Your task to perform on an android device: Open the calendar app, open the side menu, and click the "Day" option Image 0: 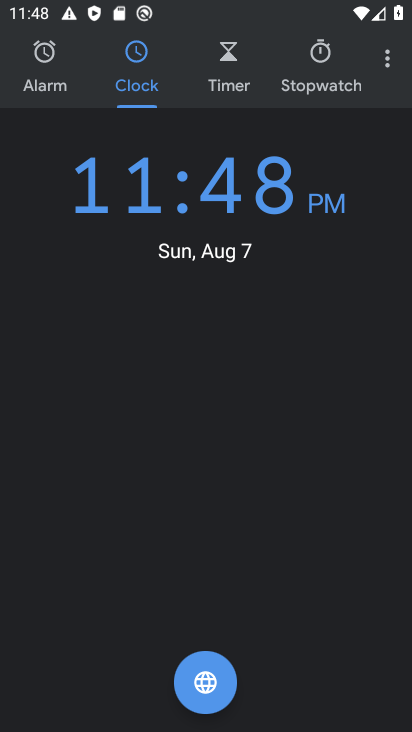
Step 0: press home button
Your task to perform on an android device: Open the calendar app, open the side menu, and click the "Day" option Image 1: 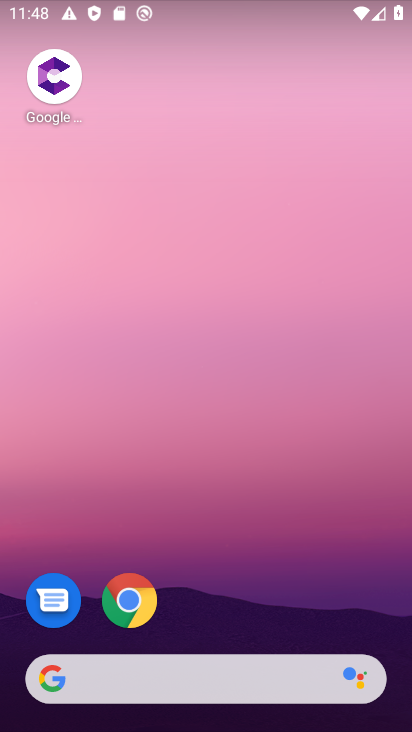
Step 1: drag from (190, 615) to (193, 174)
Your task to perform on an android device: Open the calendar app, open the side menu, and click the "Day" option Image 2: 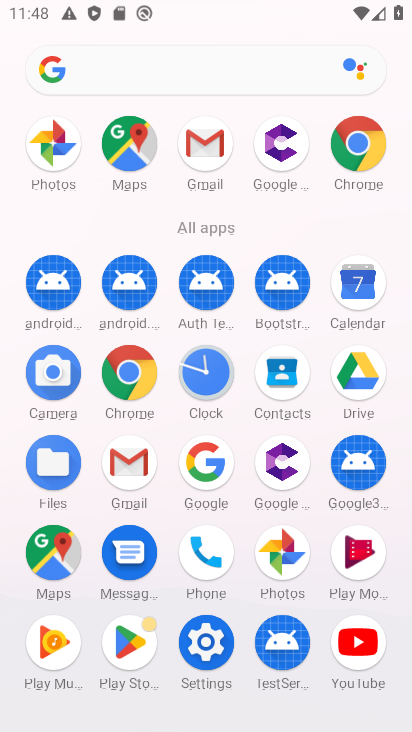
Step 2: click (338, 319)
Your task to perform on an android device: Open the calendar app, open the side menu, and click the "Day" option Image 3: 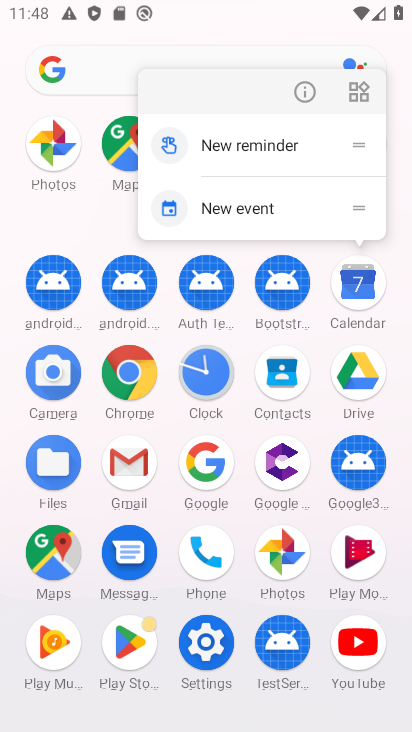
Step 3: click (337, 305)
Your task to perform on an android device: Open the calendar app, open the side menu, and click the "Day" option Image 4: 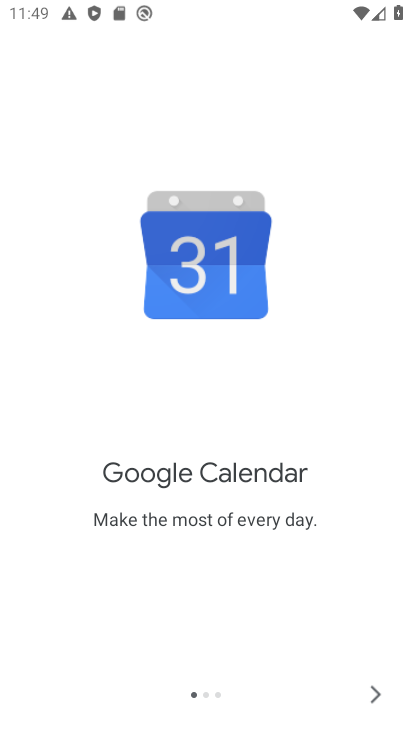
Step 4: click (379, 688)
Your task to perform on an android device: Open the calendar app, open the side menu, and click the "Day" option Image 5: 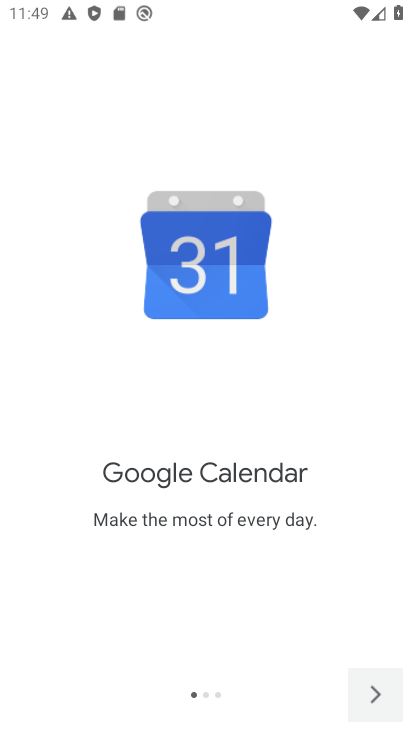
Step 5: click (379, 688)
Your task to perform on an android device: Open the calendar app, open the side menu, and click the "Day" option Image 6: 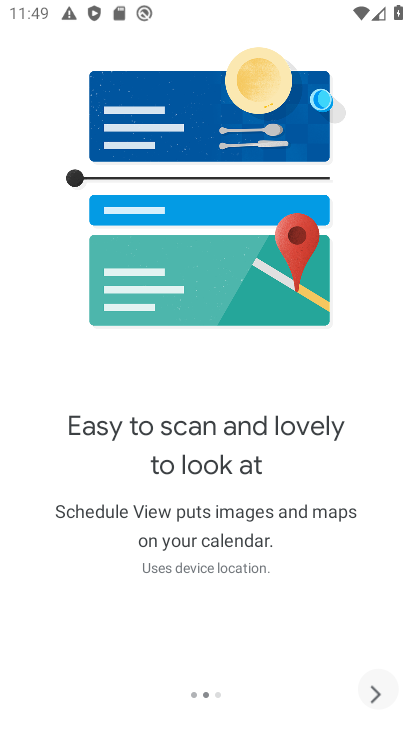
Step 6: click (379, 688)
Your task to perform on an android device: Open the calendar app, open the side menu, and click the "Day" option Image 7: 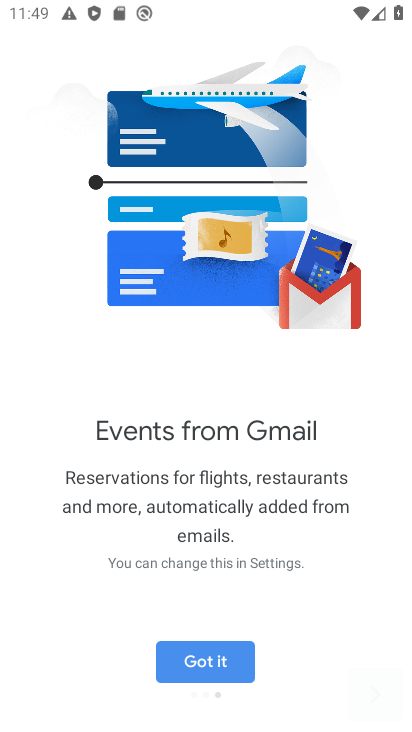
Step 7: click (379, 688)
Your task to perform on an android device: Open the calendar app, open the side menu, and click the "Day" option Image 8: 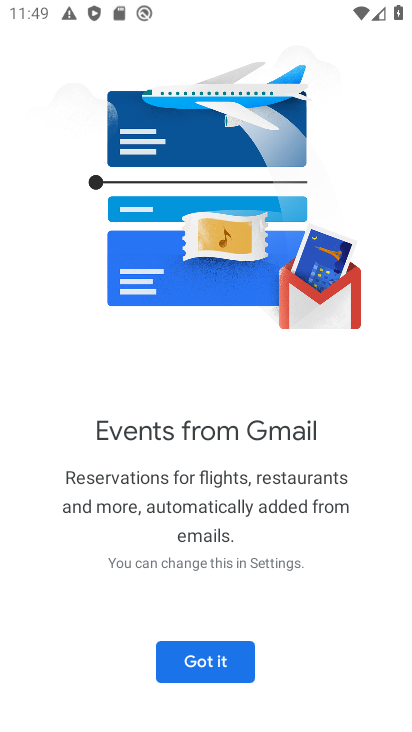
Step 8: click (234, 654)
Your task to perform on an android device: Open the calendar app, open the side menu, and click the "Day" option Image 9: 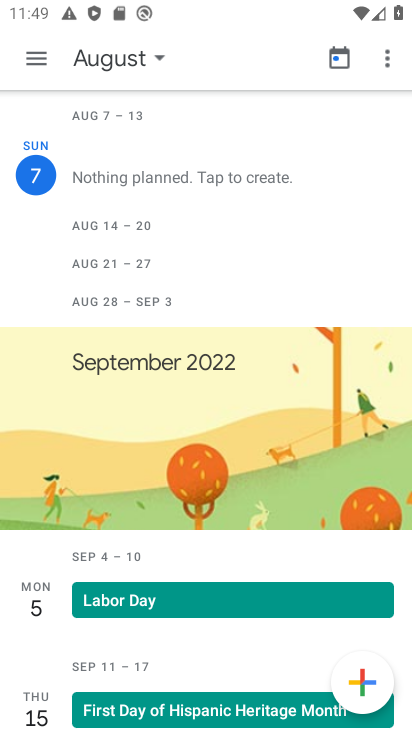
Step 9: click (45, 49)
Your task to perform on an android device: Open the calendar app, open the side menu, and click the "Day" option Image 10: 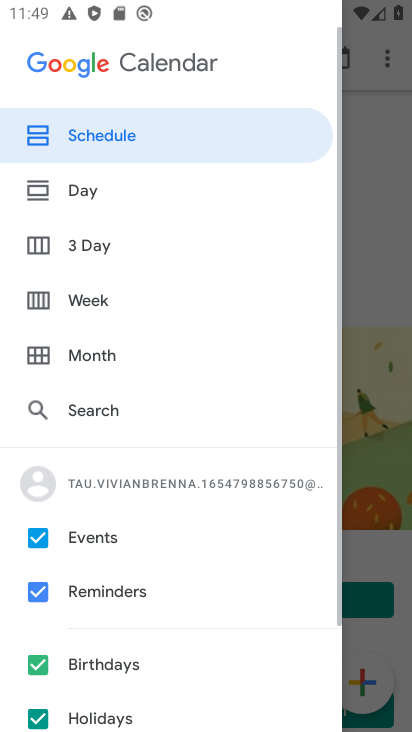
Step 10: click (123, 202)
Your task to perform on an android device: Open the calendar app, open the side menu, and click the "Day" option Image 11: 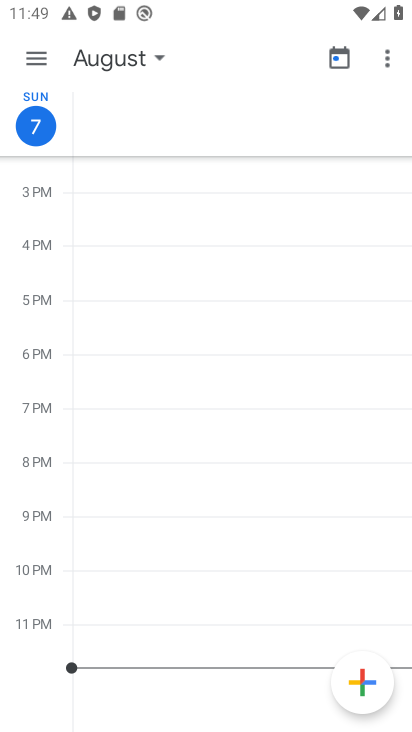
Step 11: task complete